Your task to perform on an android device: Open Google Chrome Image 0: 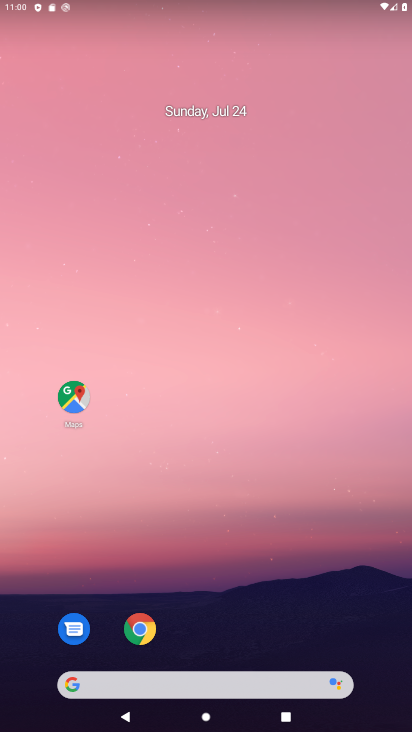
Step 0: click (142, 641)
Your task to perform on an android device: Open Google Chrome Image 1: 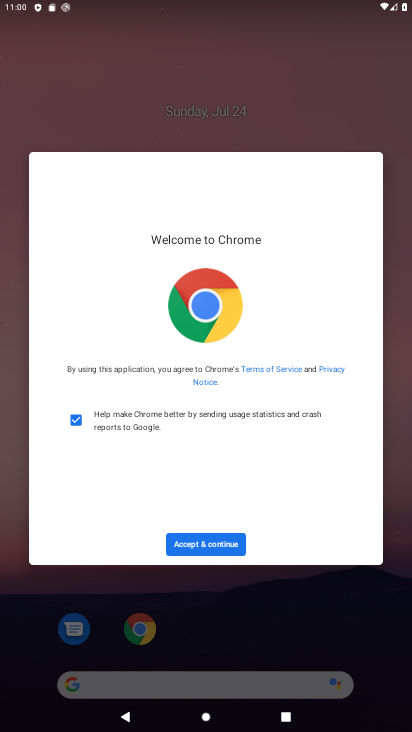
Step 1: click (142, 641)
Your task to perform on an android device: Open Google Chrome Image 2: 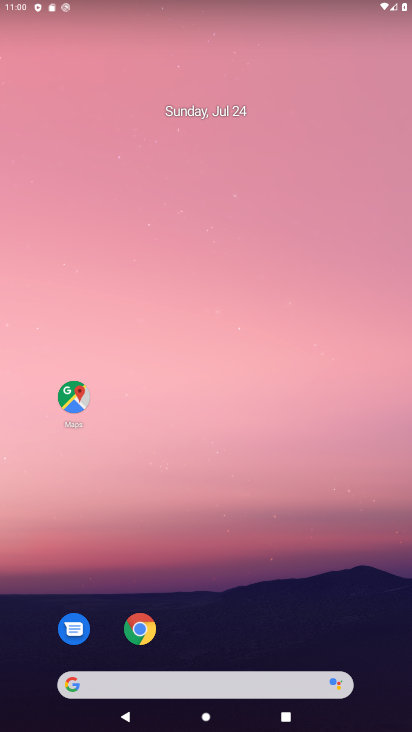
Step 2: click (142, 641)
Your task to perform on an android device: Open Google Chrome Image 3: 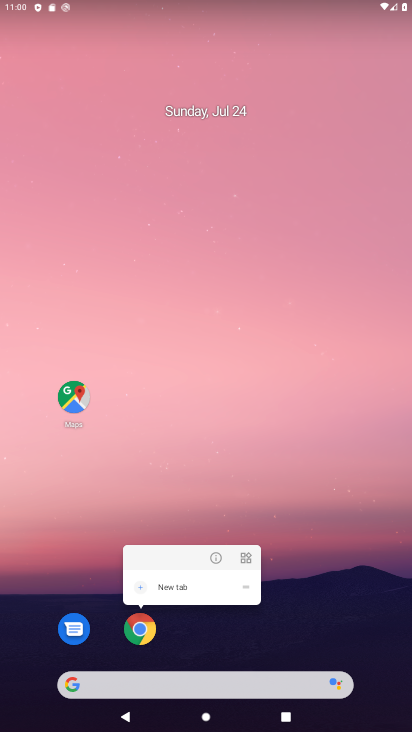
Step 3: click (142, 641)
Your task to perform on an android device: Open Google Chrome Image 4: 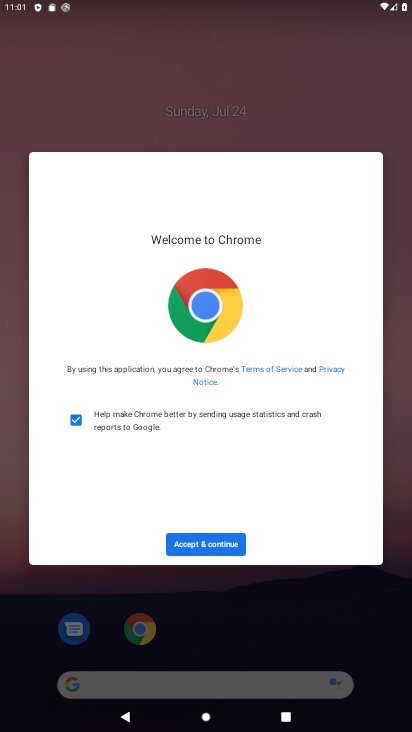
Step 4: click (174, 543)
Your task to perform on an android device: Open Google Chrome Image 5: 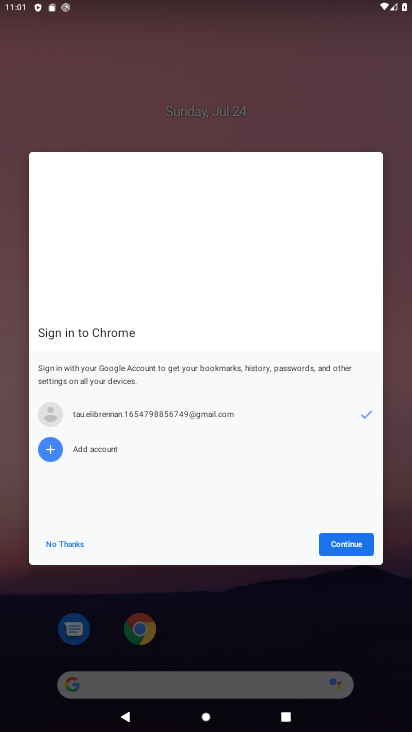
Step 5: click (174, 543)
Your task to perform on an android device: Open Google Chrome Image 6: 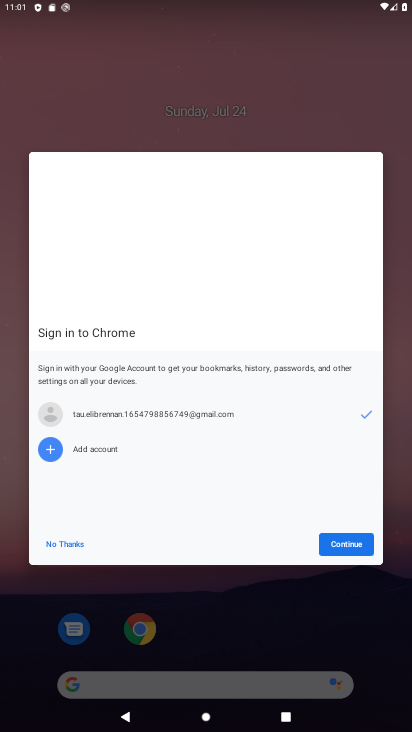
Step 6: click (174, 543)
Your task to perform on an android device: Open Google Chrome Image 7: 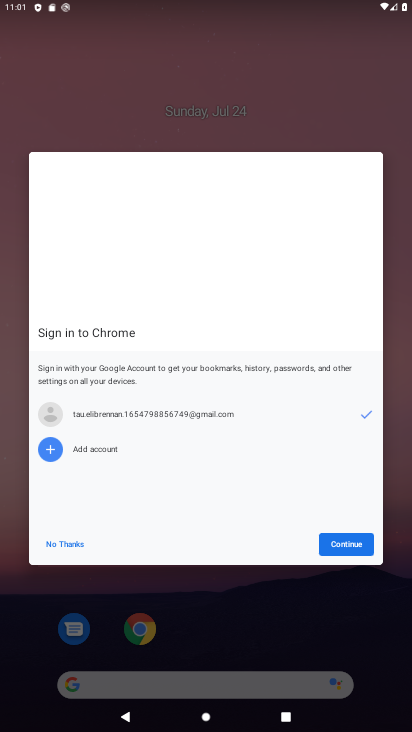
Step 7: click (174, 543)
Your task to perform on an android device: Open Google Chrome Image 8: 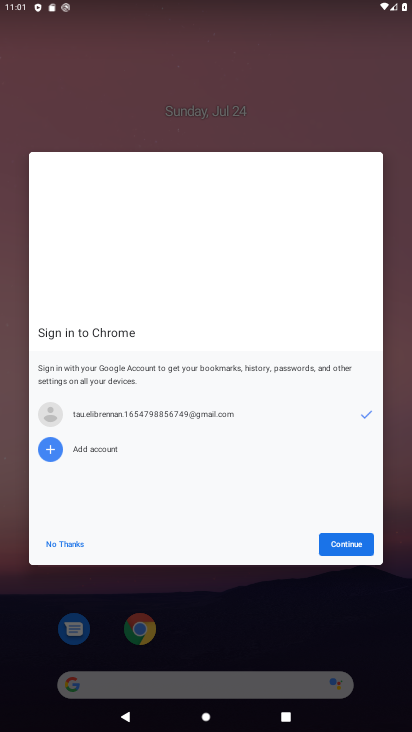
Step 8: click (323, 553)
Your task to perform on an android device: Open Google Chrome Image 9: 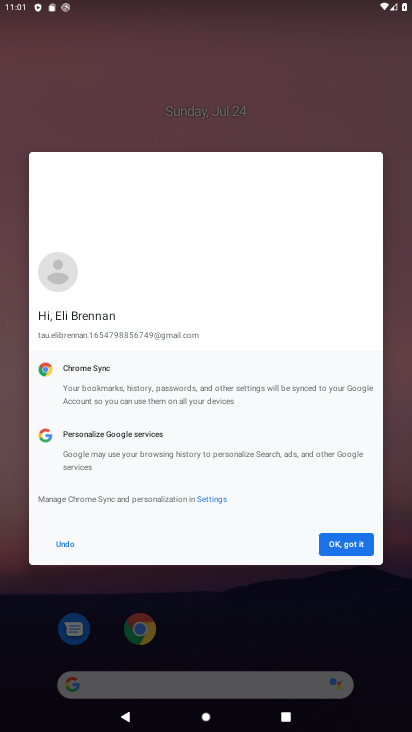
Step 9: click (349, 543)
Your task to perform on an android device: Open Google Chrome Image 10: 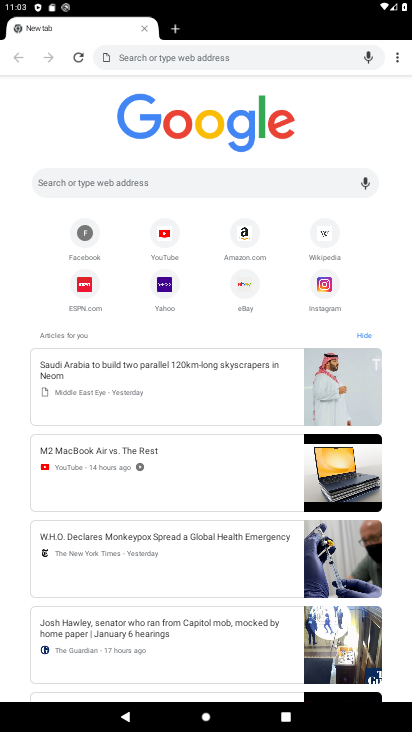
Step 10: task complete